Your task to perform on an android device: check data usage Image 0: 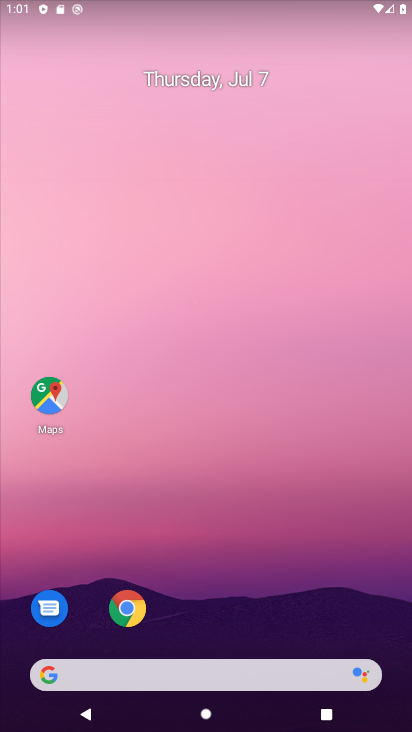
Step 0: drag from (180, 622) to (273, 4)
Your task to perform on an android device: check data usage Image 1: 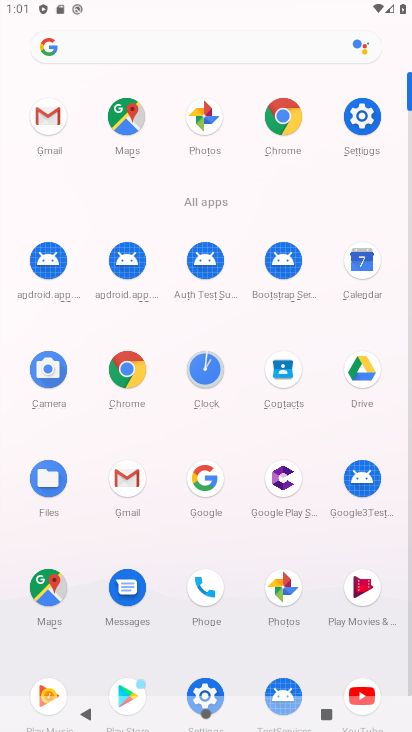
Step 1: click (366, 120)
Your task to perform on an android device: check data usage Image 2: 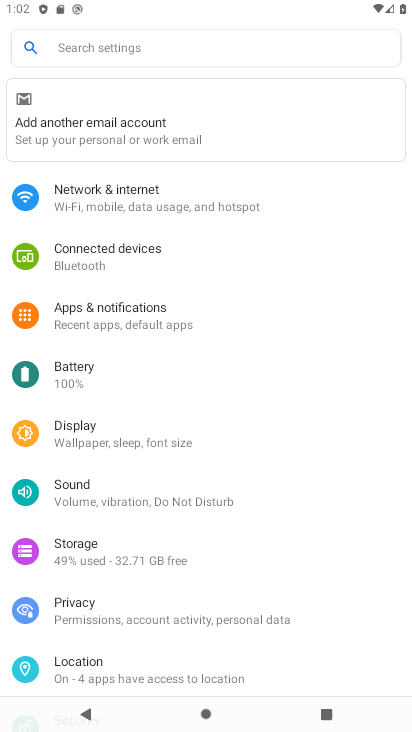
Step 2: click (182, 197)
Your task to perform on an android device: check data usage Image 3: 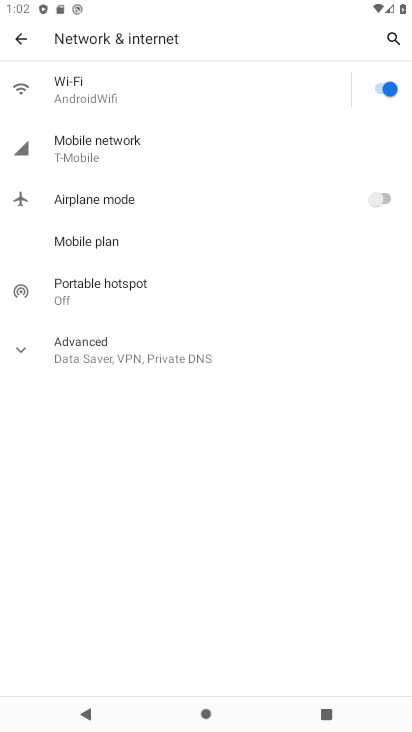
Step 3: click (184, 356)
Your task to perform on an android device: check data usage Image 4: 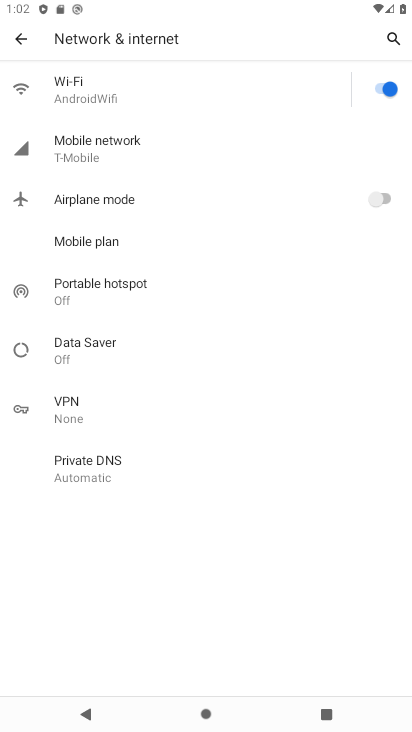
Step 4: click (120, 160)
Your task to perform on an android device: check data usage Image 5: 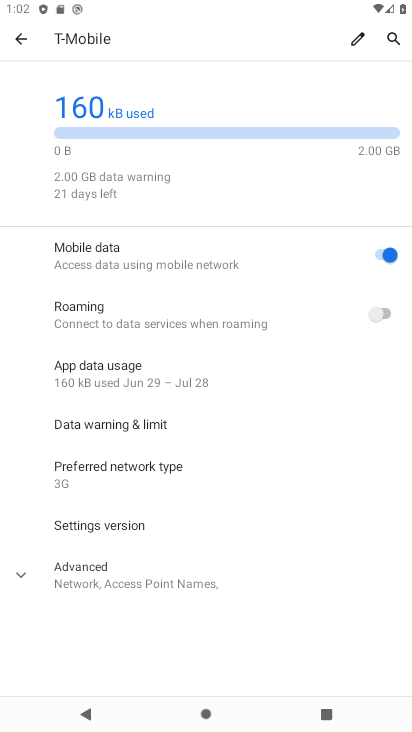
Step 5: click (123, 377)
Your task to perform on an android device: check data usage Image 6: 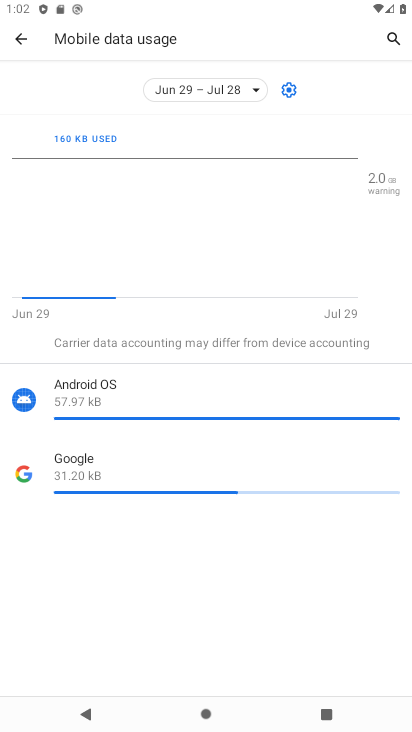
Step 6: task complete